Your task to perform on an android device: toggle location history Image 0: 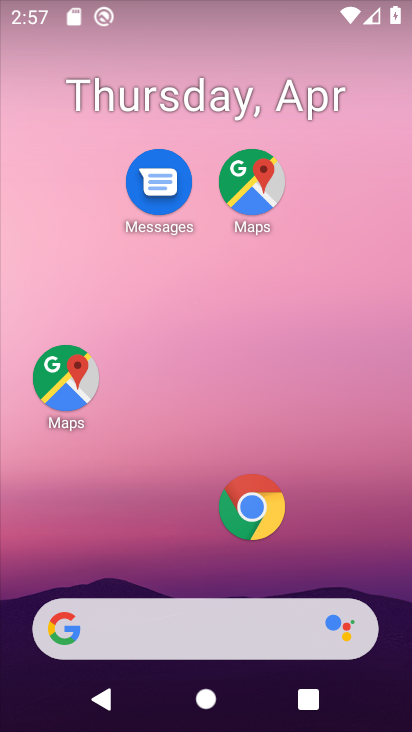
Step 0: drag from (168, 599) to (248, 15)
Your task to perform on an android device: toggle location history Image 1: 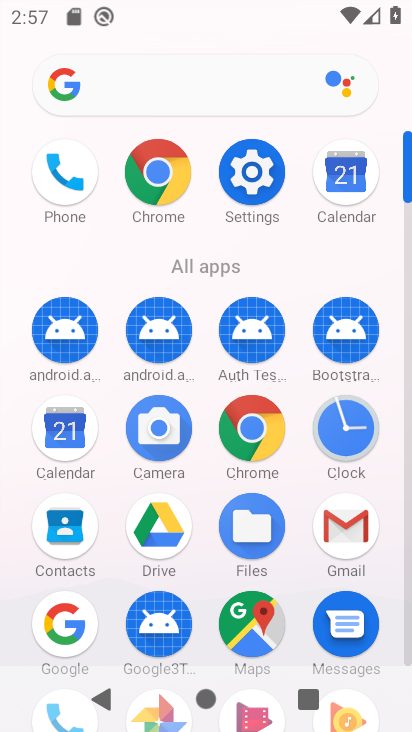
Step 1: click (246, 185)
Your task to perform on an android device: toggle location history Image 2: 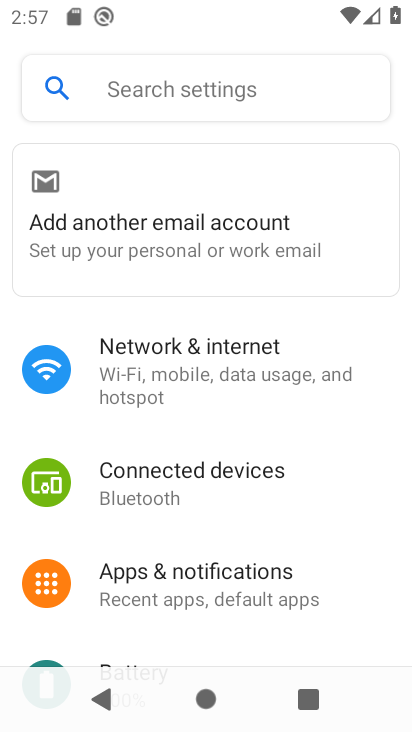
Step 2: drag from (171, 404) to (249, 124)
Your task to perform on an android device: toggle location history Image 3: 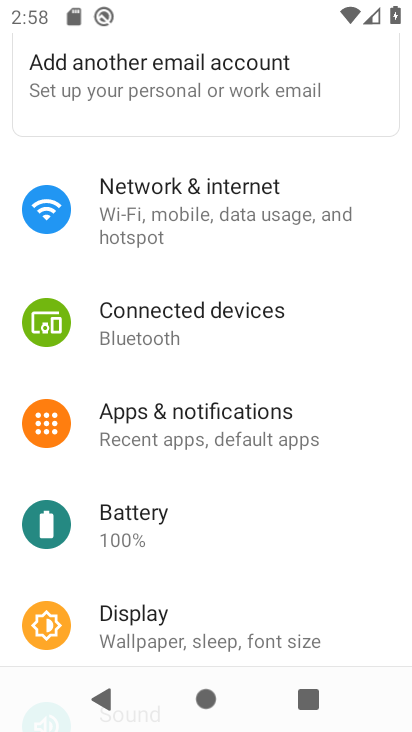
Step 3: drag from (161, 500) to (265, 117)
Your task to perform on an android device: toggle location history Image 4: 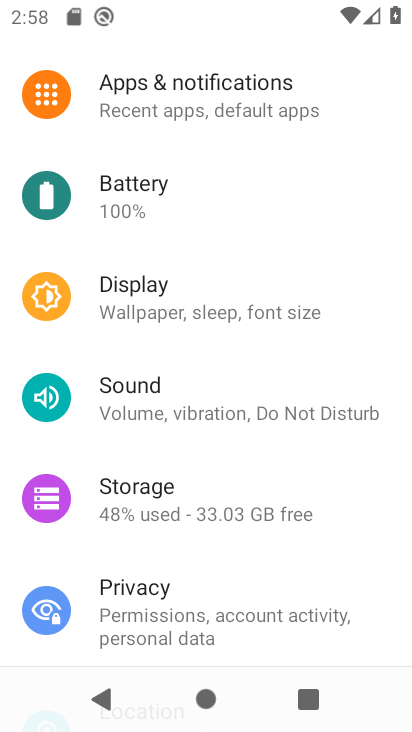
Step 4: drag from (184, 380) to (263, 86)
Your task to perform on an android device: toggle location history Image 5: 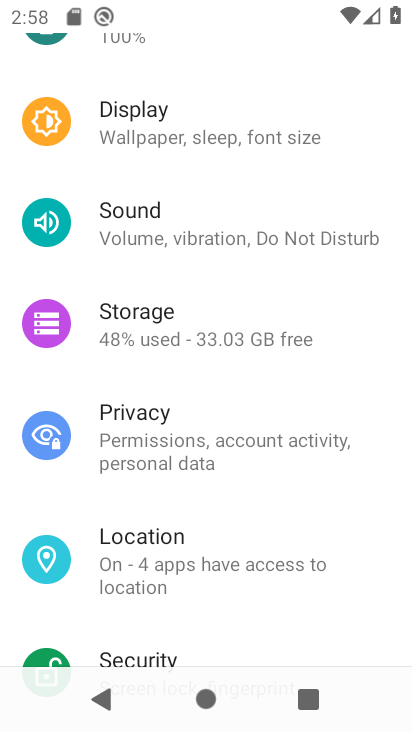
Step 5: click (170, 569)
Your task to perform on an android device: toggle location history Image 6: 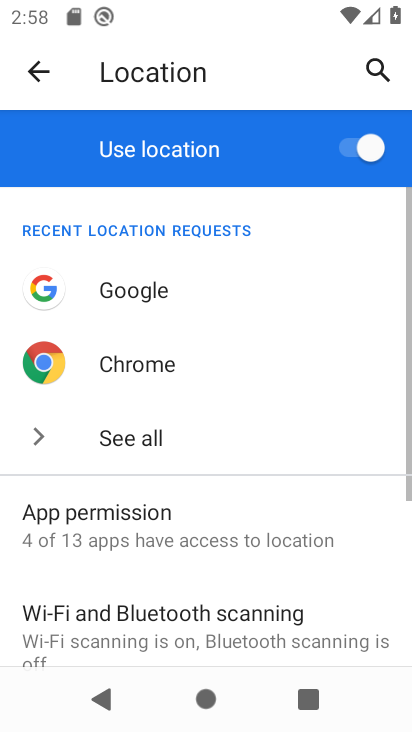
Step 6: drag from (120, 544) to (208, 220)
Your task to perform on an android device: toggle location history Image 7: 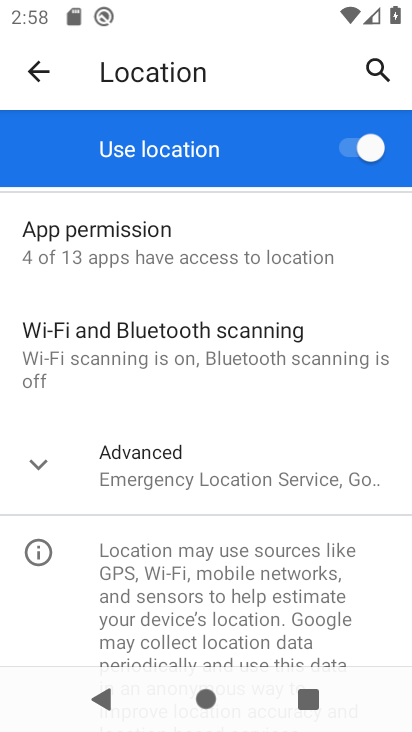
Step 7: drag from (170, 466) to (215, 245)
Your task to perform on an android device: toggle location history Image 8: 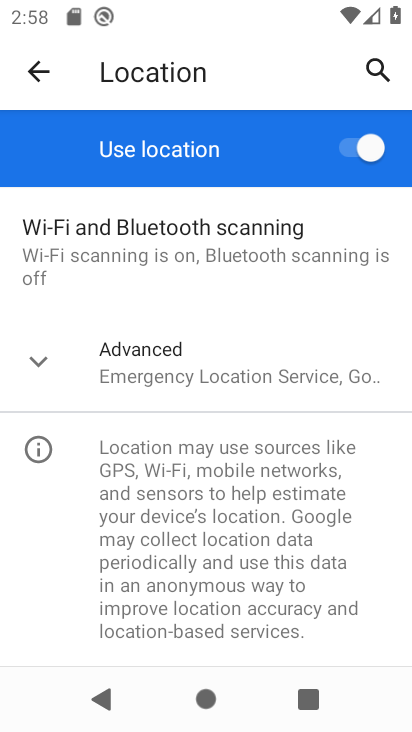
Step 8: click (200, 385)
Your task to perform on an android device: toggle location history Image 9: 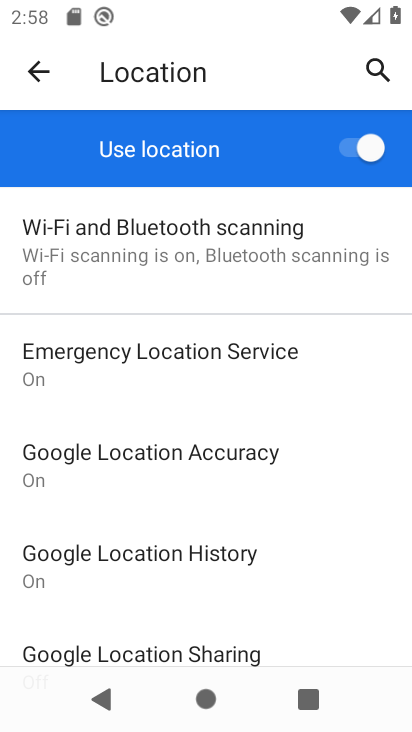
Step 9: click (173, 564)
Your task to perform on an android device: toggle location history Image 10: 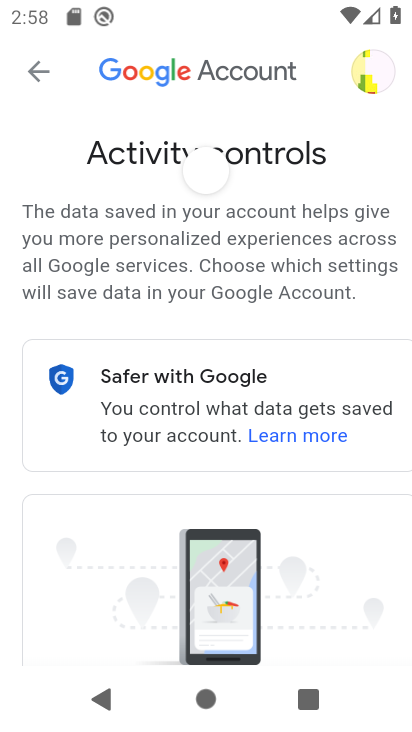
Step 10: drag from (205, 538) to (317, 138)
Your task to perform on an android device: toggle location history Image 11: 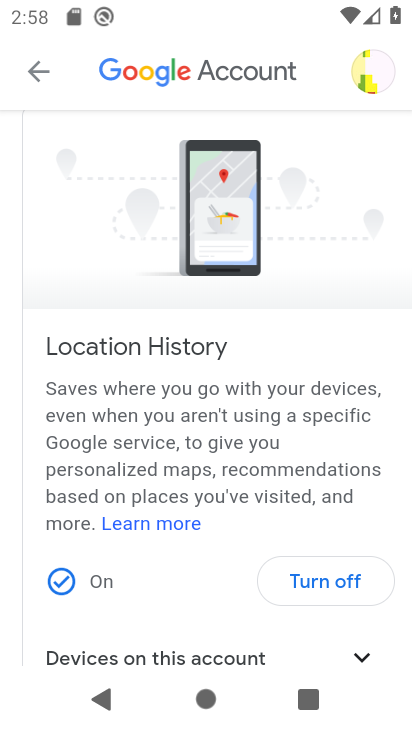
Step 11: click (347, 582)
Your task to perform on an android device: toggle location history Image 12: 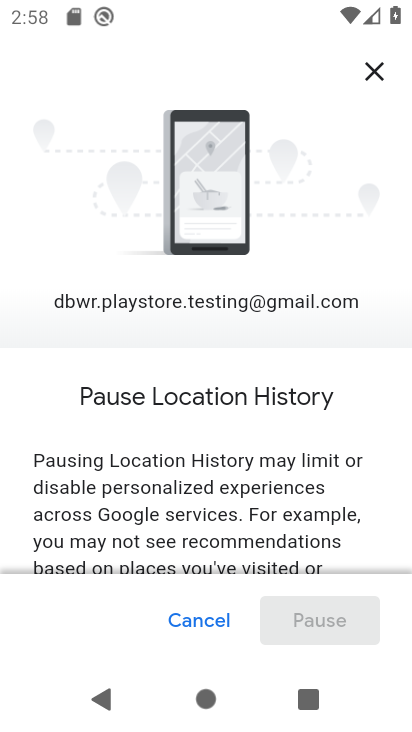
Step 12: drag from (196, 536) to (305, 7)
Your task to perform on an android device: toggle location history Image 13: 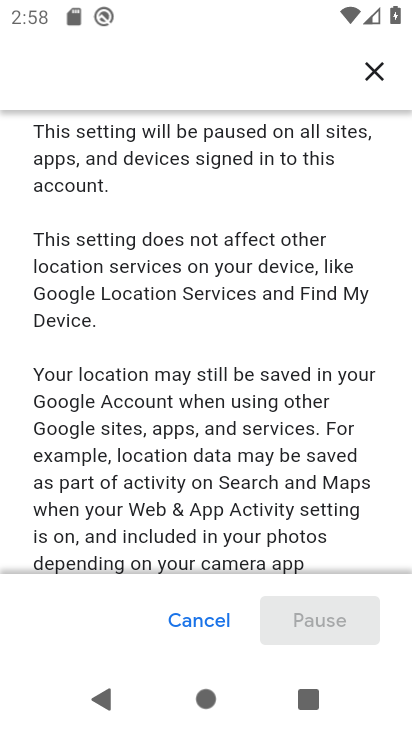
Step 13: drag from (250, 476) to (281, 24)
Your task to perform on an android device: toggle location history Image 14: 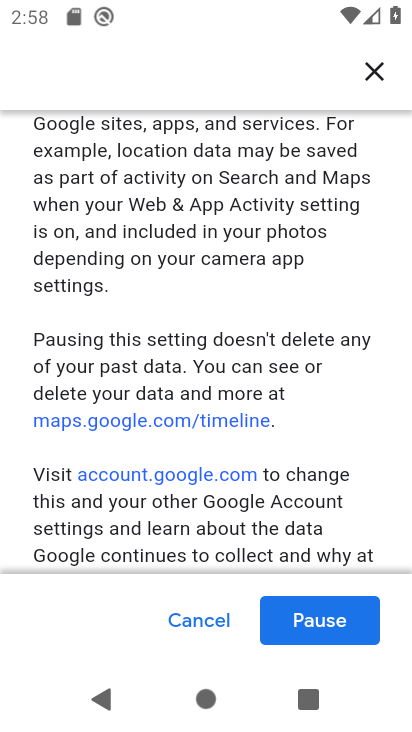
Step 14: click (309, 622)
Your task to perform on an android device: toggle location history Image 15: 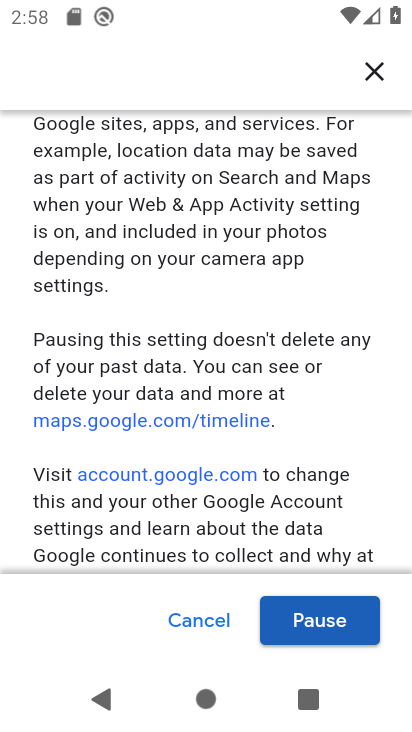
Step 15: click (304, 632)
Your task to perform on an android device: toggle location history Image 16: 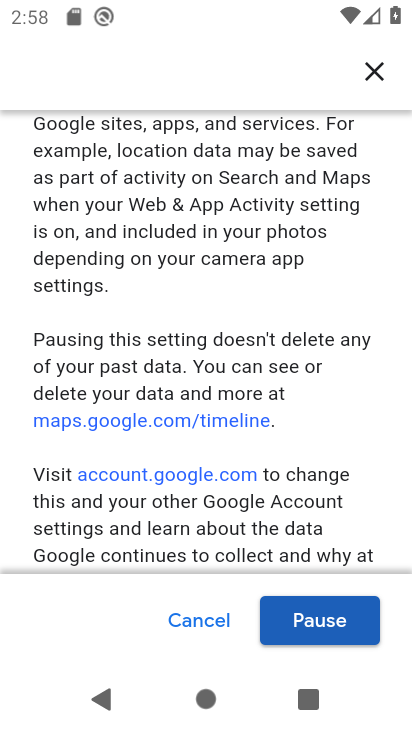
Step 16: click (284, 629)
Your task to perform on an android device: toggle location history Image 17: 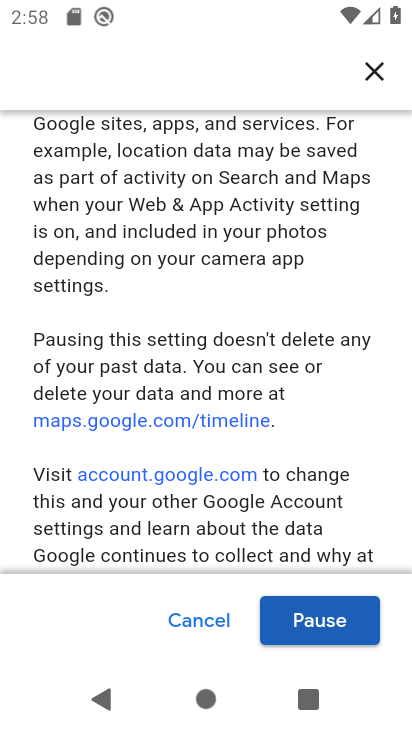
Step 17: click (284, 629)
Your task to perform on an android device: toggle location history Image 18: 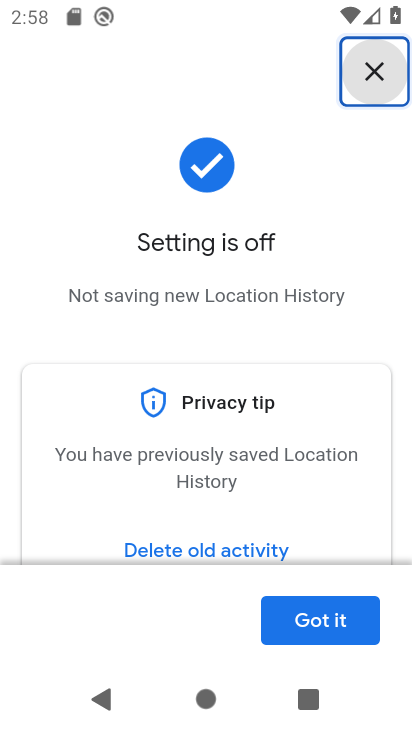
Step 18: click (284, 629)
Your task to perform on an android device: toggle location history Image 19: 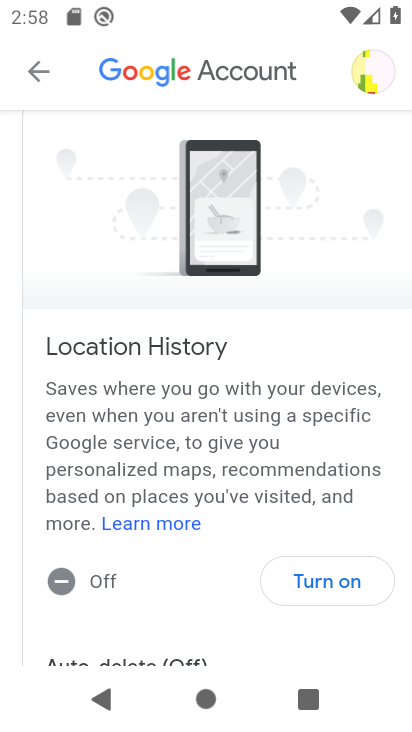
Step 19: task complete